Your task to perform on an android device: turn pop-ups off in chrome Image 0: 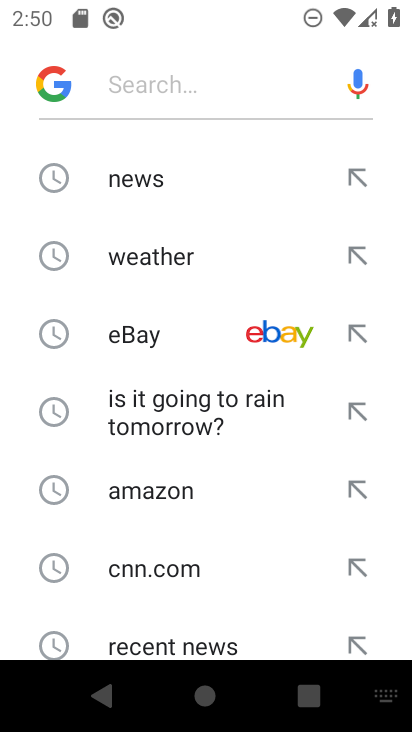
Step 0: press back button
Your task to perform on an android device: turn pop-ups off in chrome Image 1: 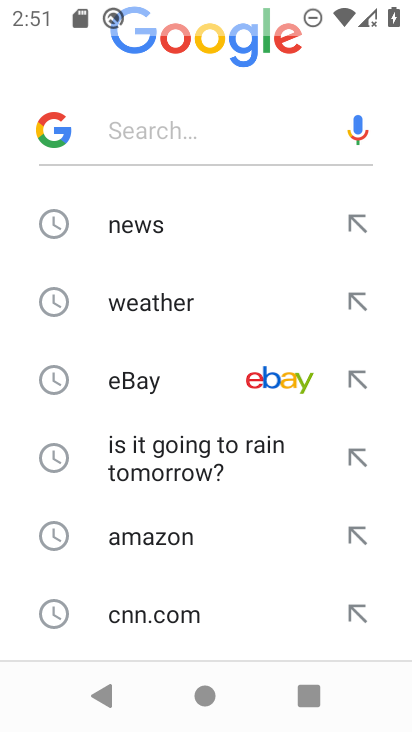
Step 1: press back button
Your task to perform on an android device: turn pop-ups off in chrome Image 2: 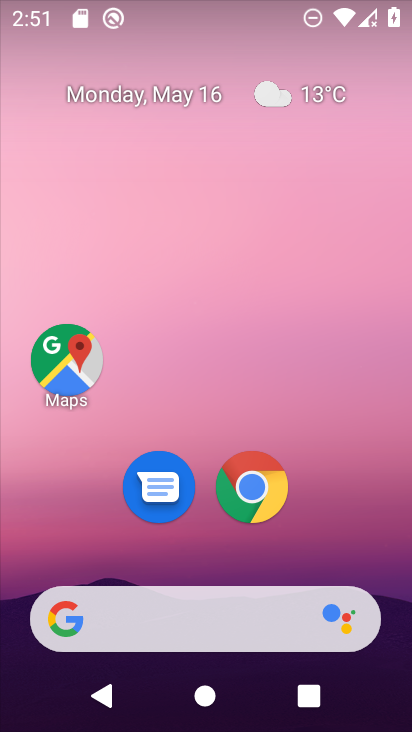
Step 2: click (261, 487)
Your task to perform on an android device: turn pop-ups off in chrome Image 3: 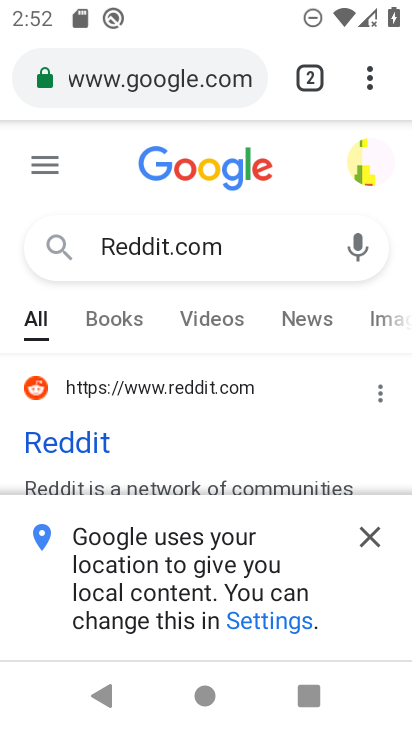
Step 3: click (372, 85)
Your task to perform on an android device: turn pop-ups off in chrome Image 4: 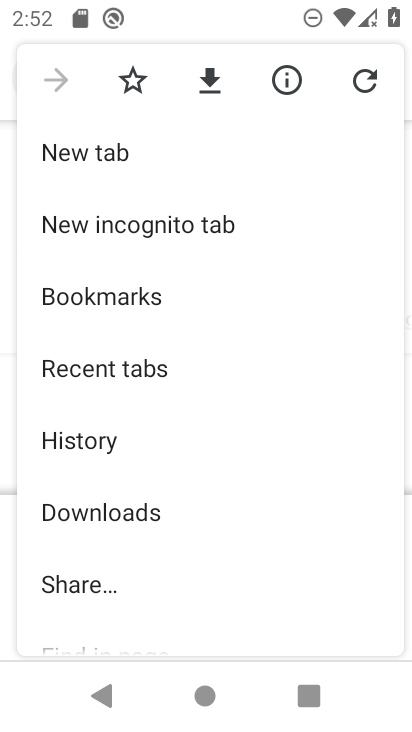
Step 4: drag from (205, 411) to (182, 233)
Your task to perform on an android device: turn pop-ups off in chrome Image 5: 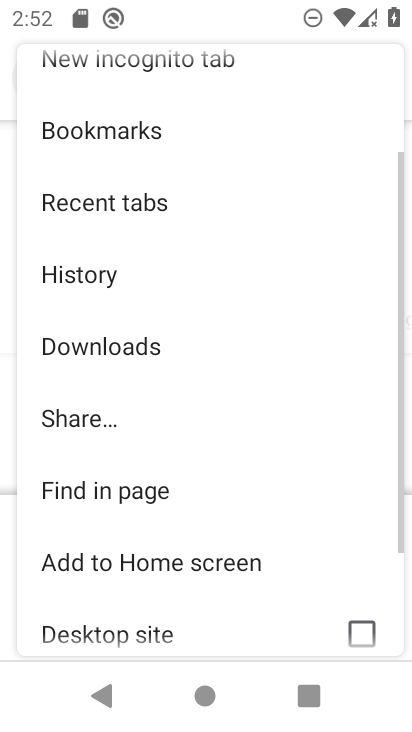
Step 5: drag from (267, 571) to (238, 331)
Your task to perform on an android device: turn pop-ups off in chrome Image 6: 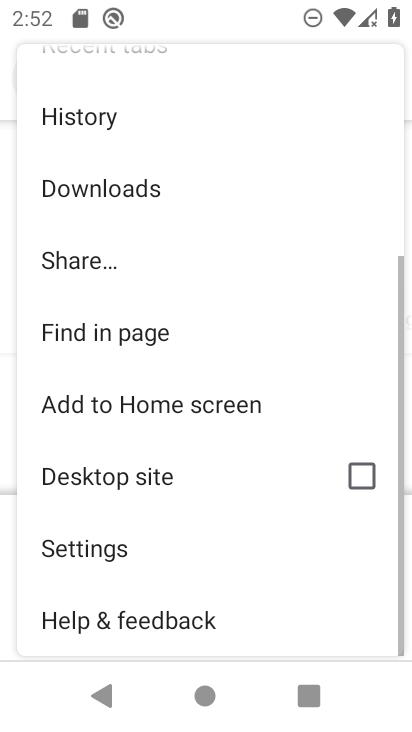
Step 6: click (87, 547)
Your task to perform on an android device: turn pop-ups off in chrome Image 7: 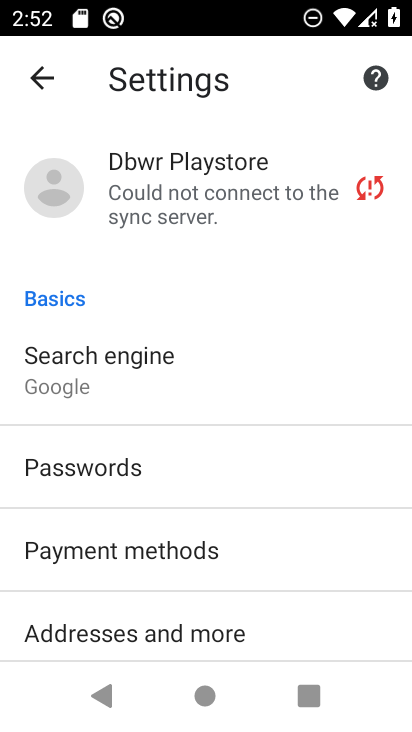
Step 7: drag from (310, 623) to (282, 447)
Your task to perform on an android device: turn pop-ups off in chrome Image 8: 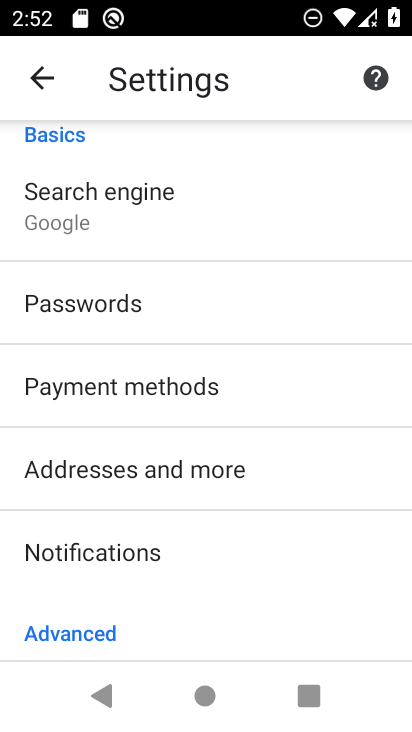
Step 8: drag from (297, 589) to (258, 310)
Your task to perform on an android device: turn pop-ups off in chrome Image 9: 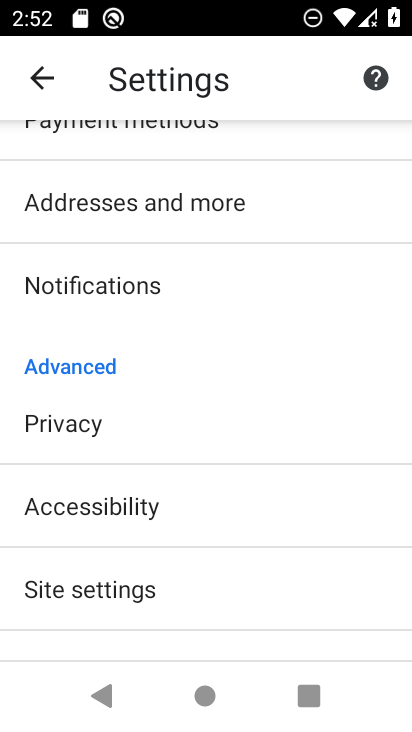
Step 9: click (87, 589)
Your task to perform on an android device: turn pop-ups off in chrome Image 10: 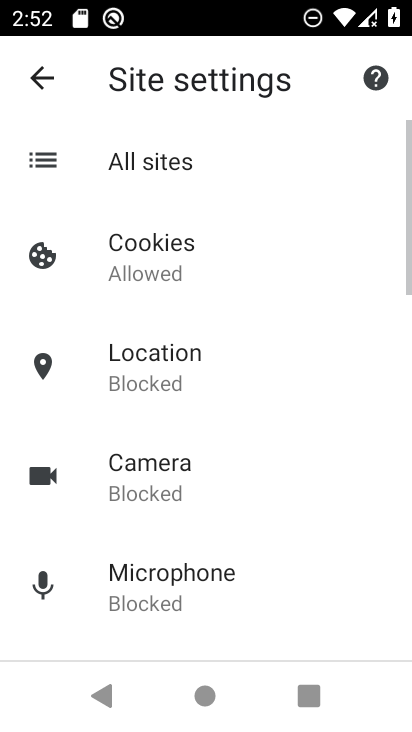
Step 10: drag from (265, 626) to (227, 388)
Your task to perform on an android device: turn pop-ups off in chrome Image 11: 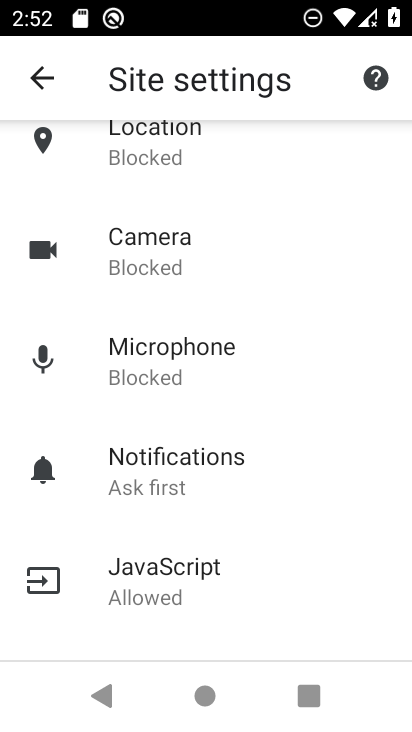
Step 11: click (157, 572)
Your task to perform on an android device: turn pop-ups off in chrome Image 12: 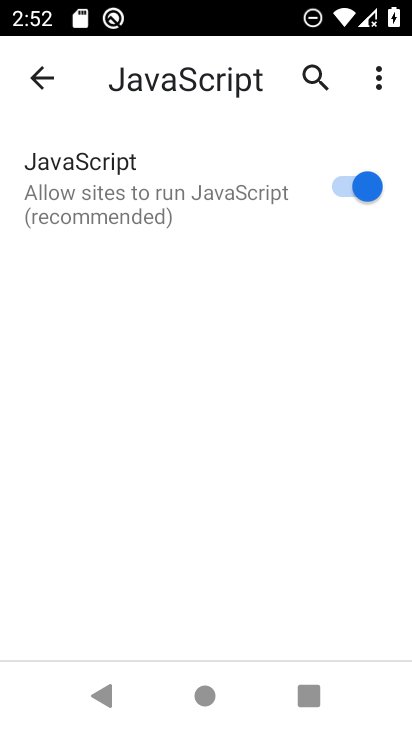
Step 12: click (40, 73)
Your task to perform on an android device: turn pop-ups off in chrome Image 13: 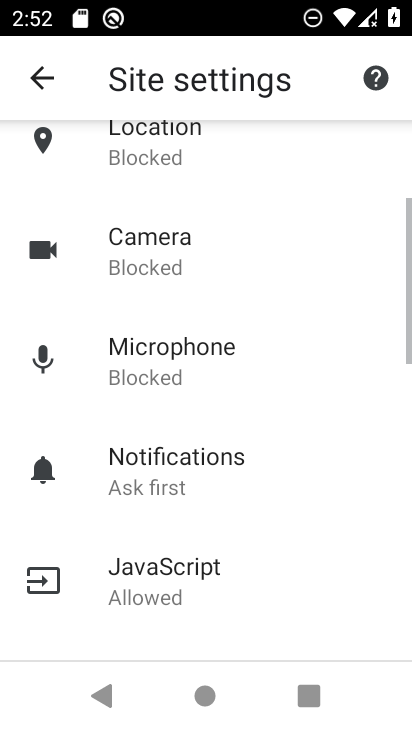
Step 13: drag from (290, 576) to (240, 297)
Your task to perform on an android device: turn pop-ups off in chrome Image 14: 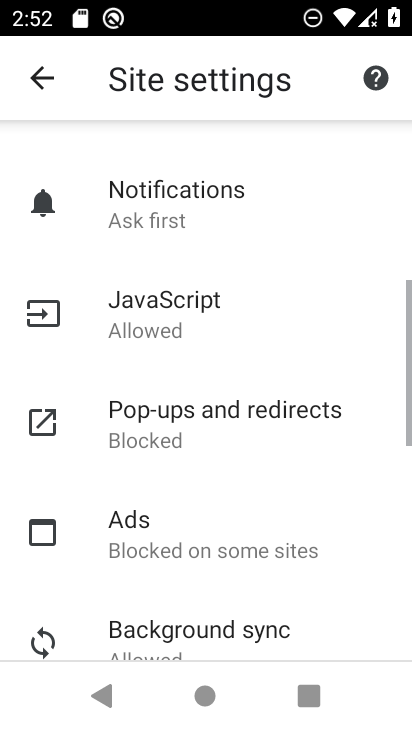
Step 14: click (191, 429)
Your task to perform on an android device: turn pop-ups off in chrome Image 15: 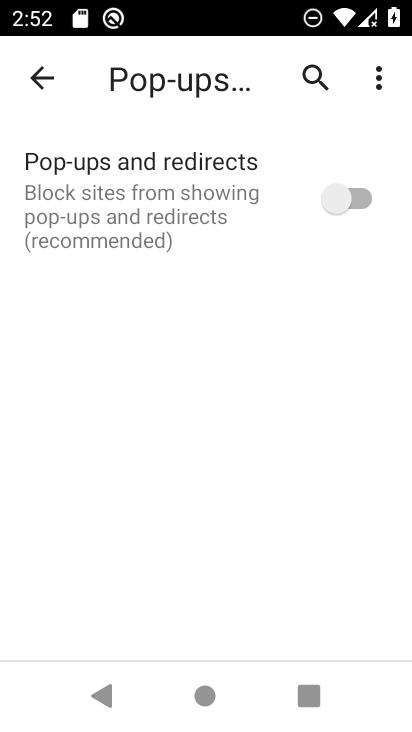
Step 15: click (365, 195)
Your task to perform on an android device: turn pop-ups off in chrome Image 16: 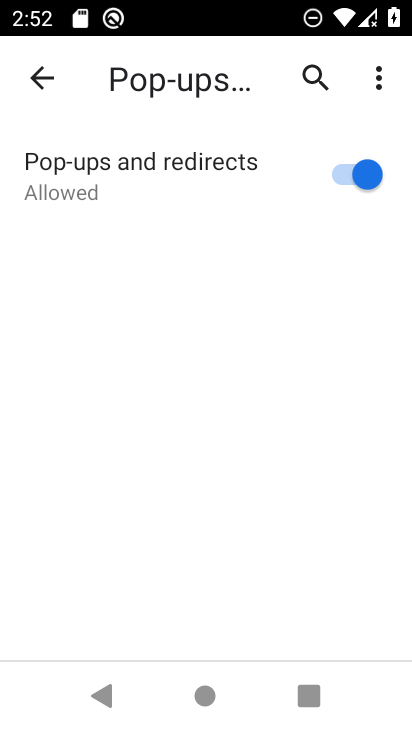
Step 16: click (338, 176)
Your task to perform on an android device: turn pop-ups off in chrome Image 17: 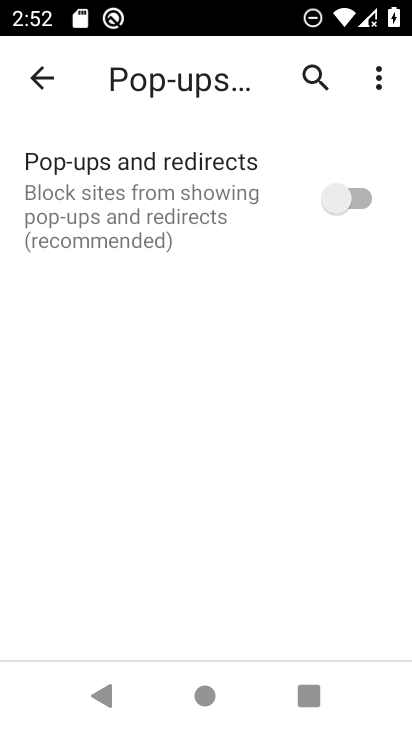
Step 17: task complete